Your task to perform on an android device: Add "logitech g pro" to the cart on costco Image 0: 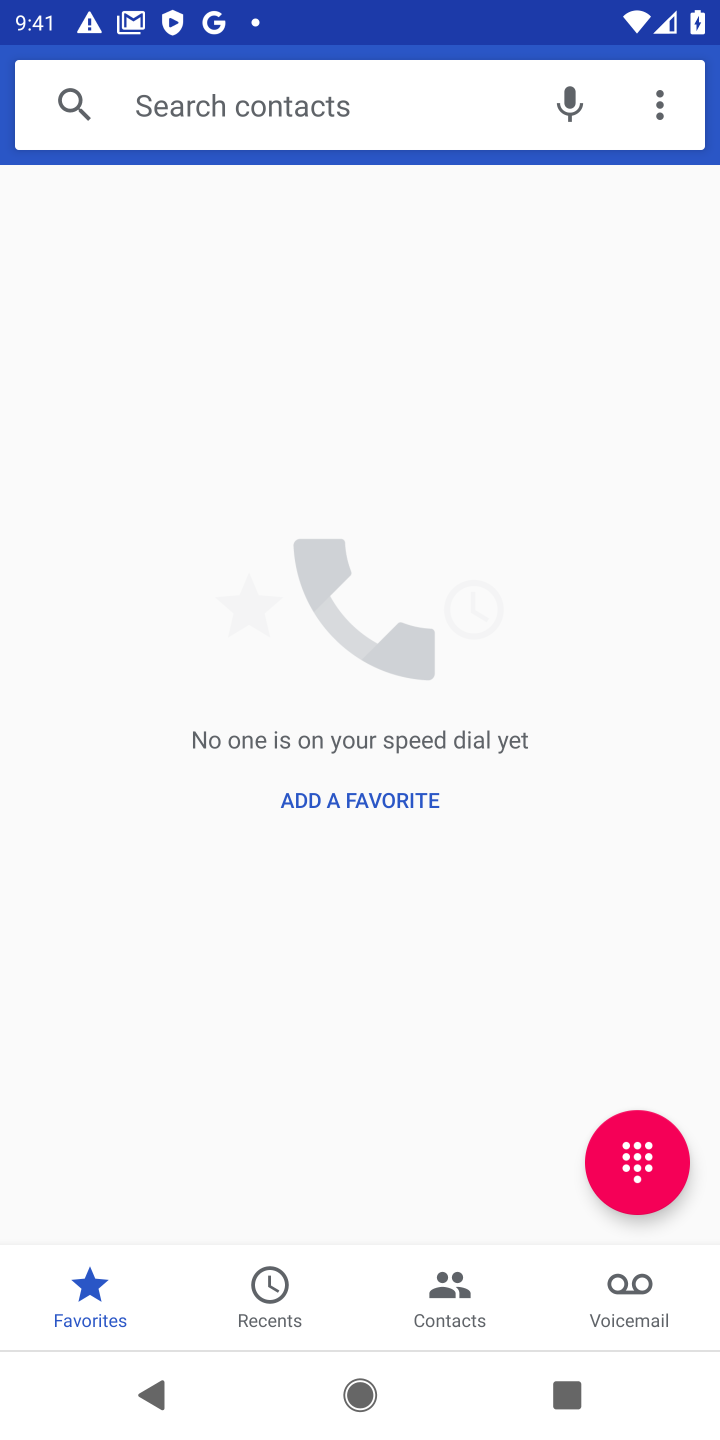
Step 0: press home button
Your task to perform on an android device: Add "logitech g pro" to the cart on costco Image 1: 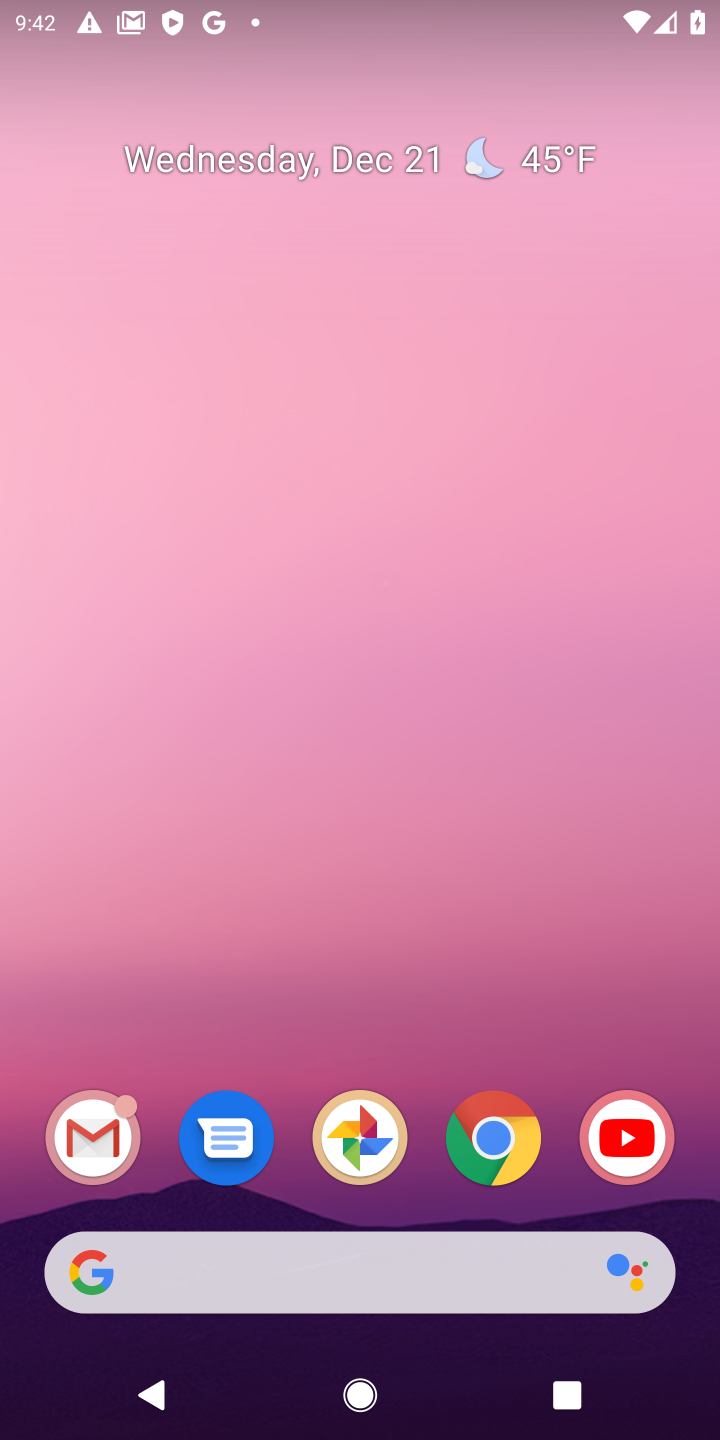
Step 1: click (485, 1144)
Your task to perform on an android device: Add "logitech g pro" to the cart on costco Image 2: 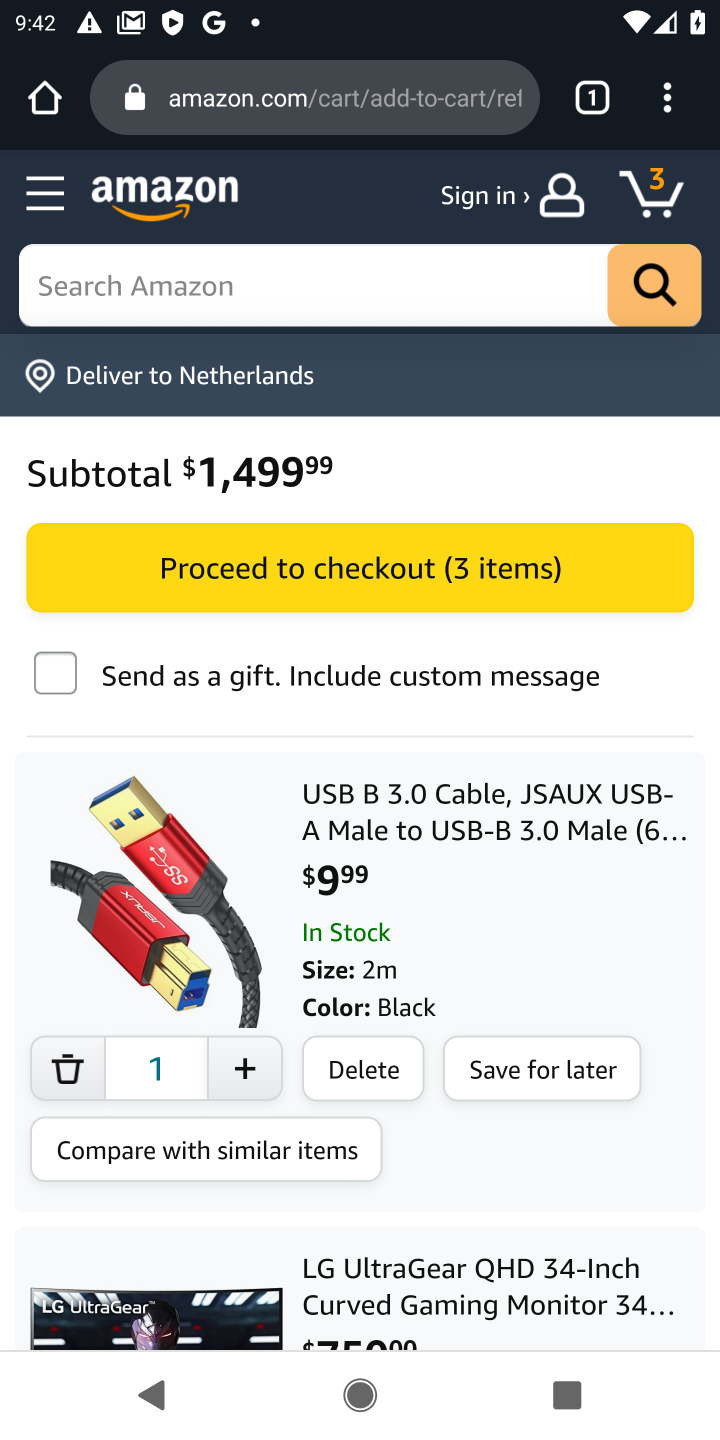
Step 2: click (273, 107)
Your task to perform on an android device: Add "logitech g pro" to the cart on costco Image 3: 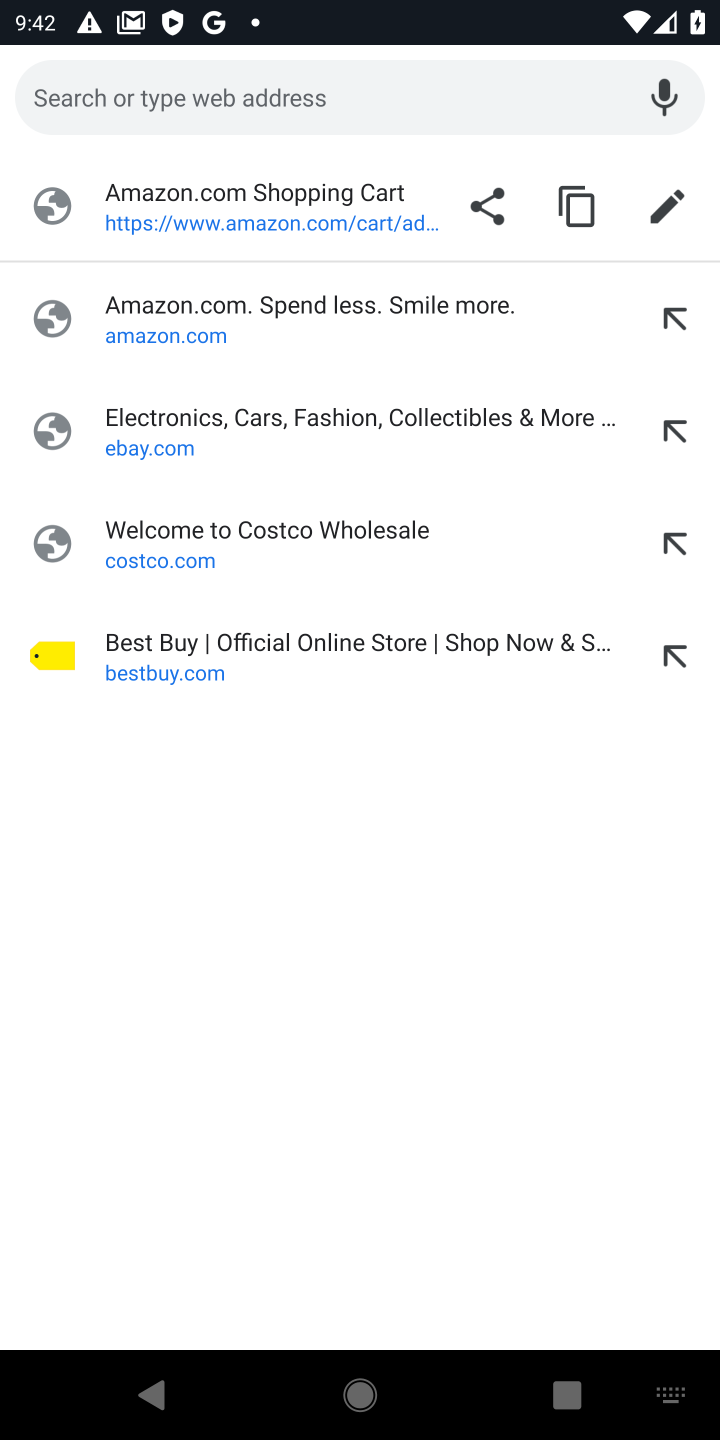
Step 3: click (135, 536)
Your task to perform on an android device: Add "logitech g pro" to the cart on costco Image 4: 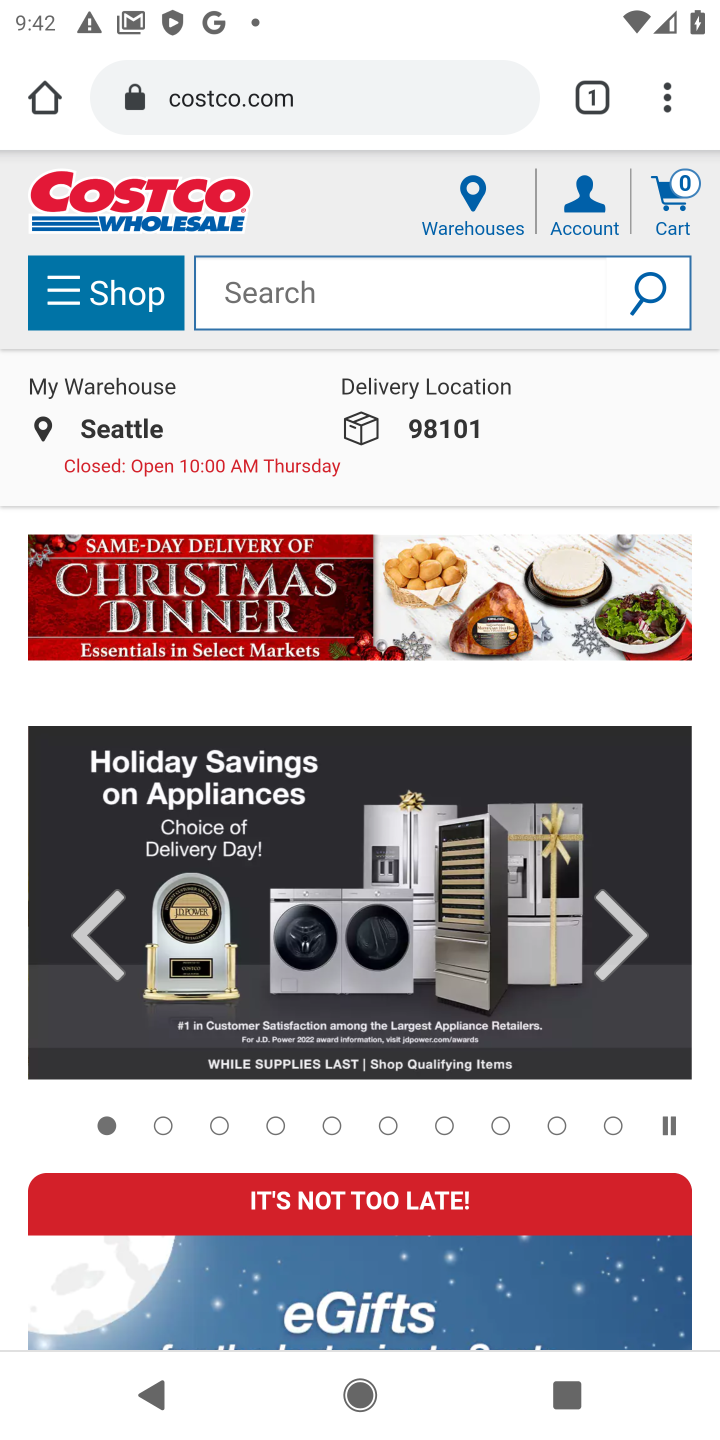
Step 4: click (258, 288)
Your task to perform on an android device: Add "logitech g pro" to the cart on costco Image 5: 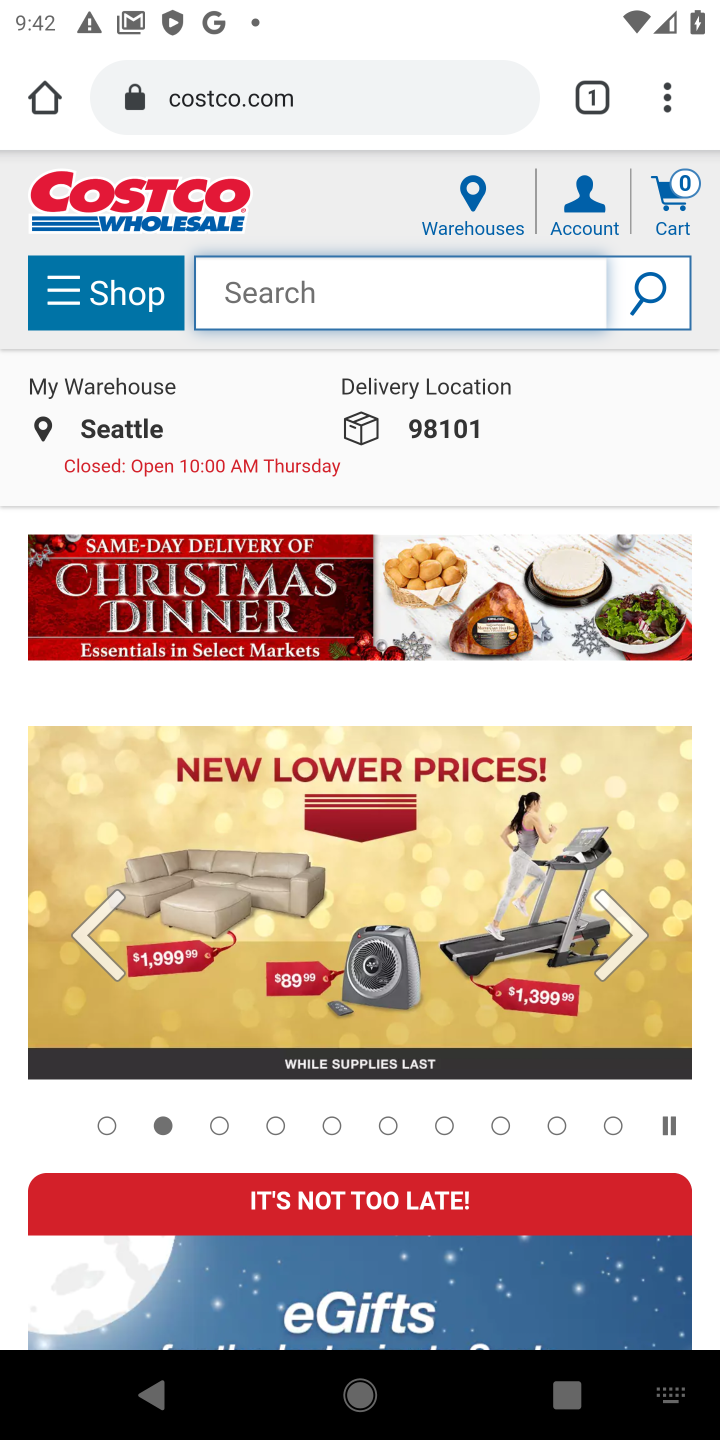
Step 5: type "logitech g pro"
Your task to perform on an android device: Add "logitech g pro" to the cart on costco Image 6: 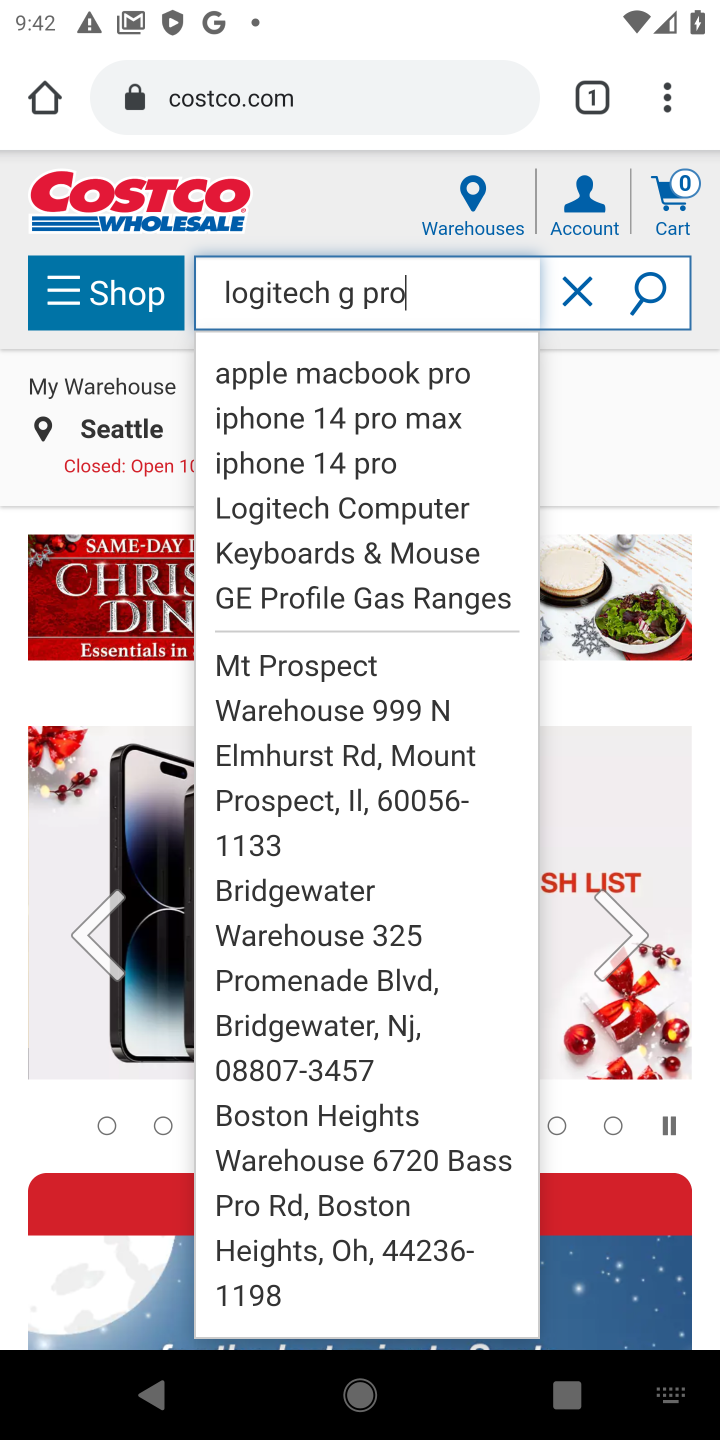
Step 6: click (646, 297)
Your task to perform on an android device: Add "logitech g pro" to the cart on costco Image 7: 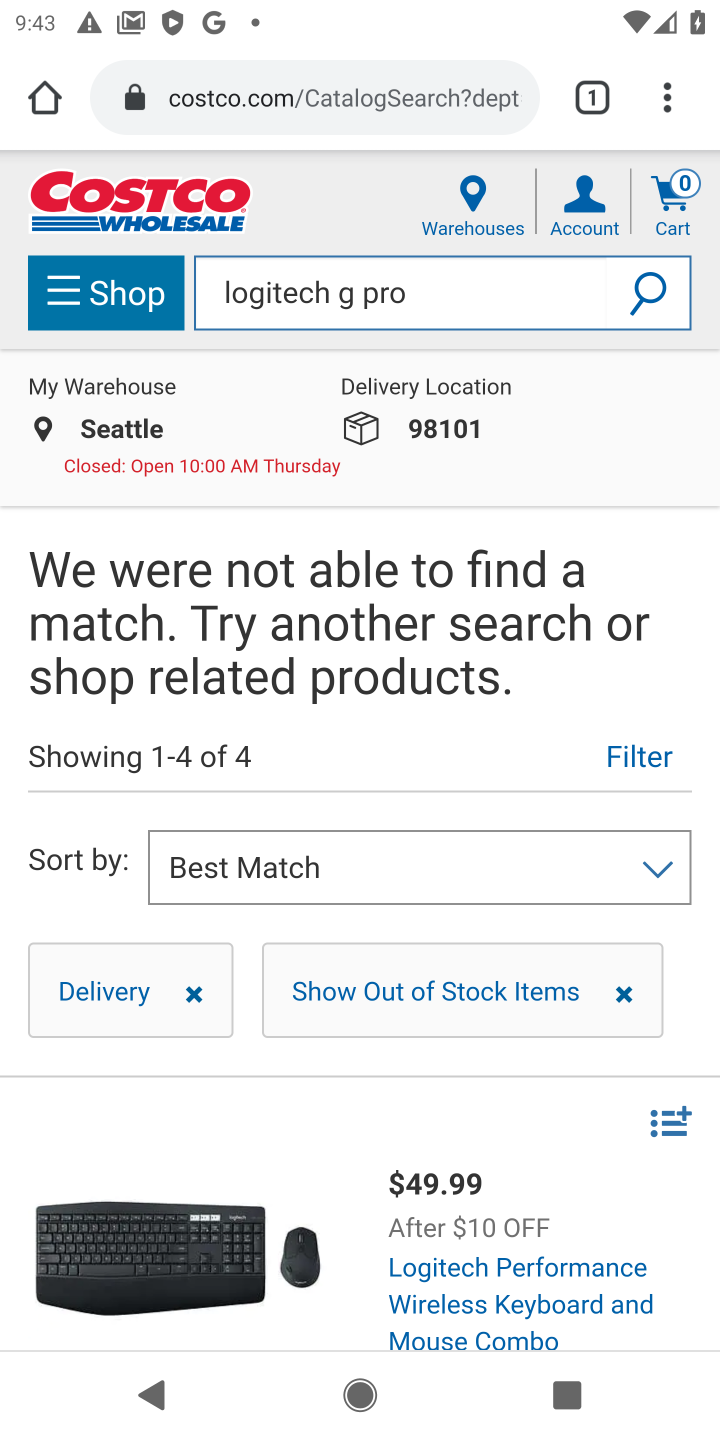
Step 7: task complete